Your task to perform on an android device: When is my next appointment? Image 0: 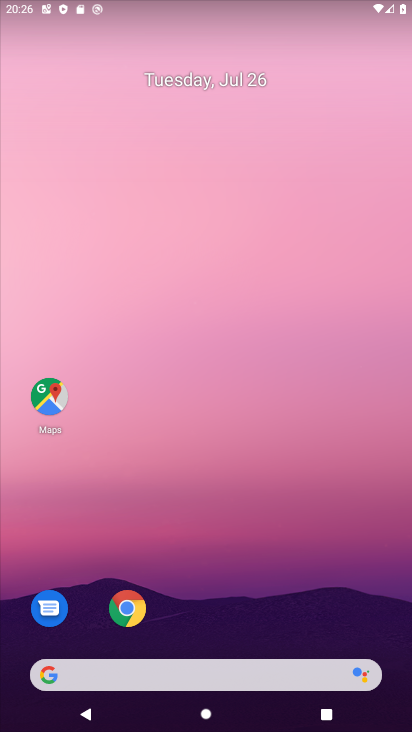
Step 0: drag from (21, 704) to (174, 118)
Your task to perform on an android device: When is my next appointment? Image 1: 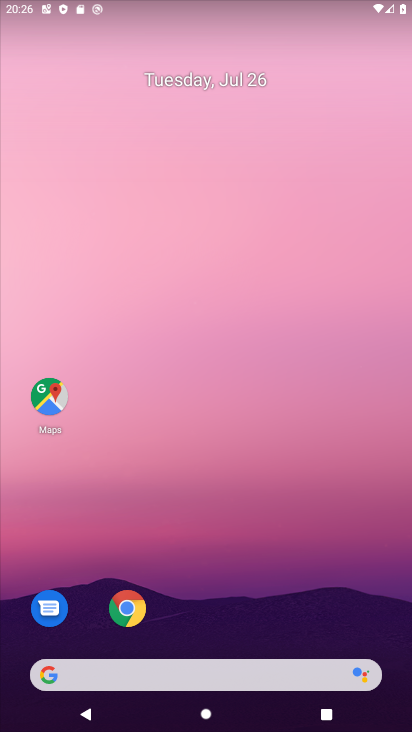
Step 1: drag from (20, 706) to (313, 3)
Your task to perform on an android device: When is my next appointment? Image 2: 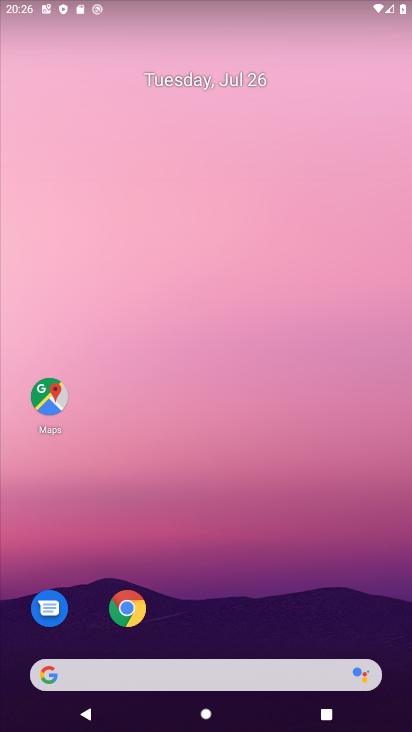
Step 2: drag from (15, 682) to (182, 68)
Your task to perform on an android device: When is my next appointment? Image 3: 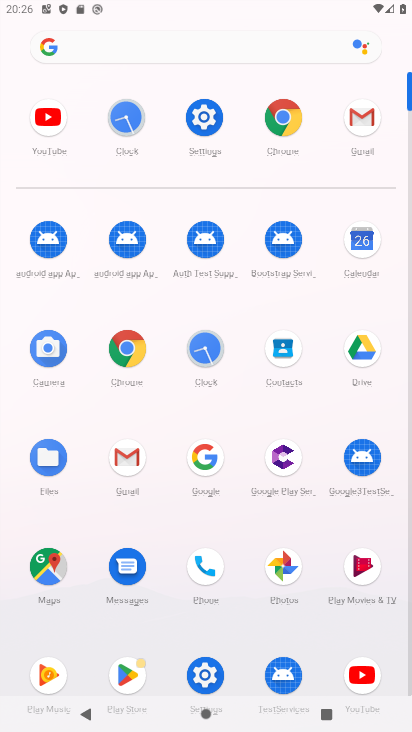
Step 3: click (364, 240)
Your task to perform on an android device: When is my next appointment? Image 4: 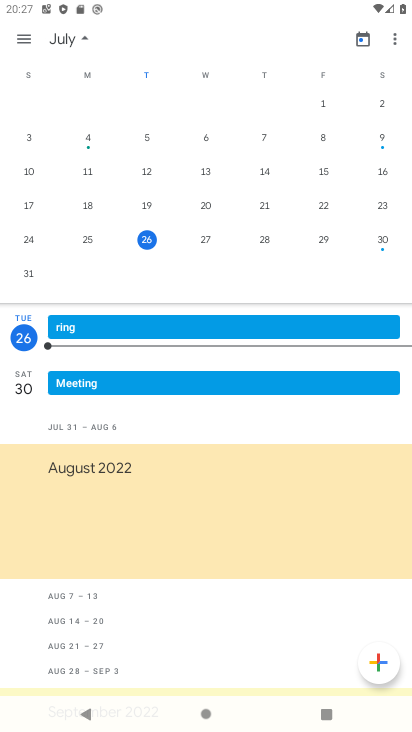
Step 4: task complete